Your task to perform on an android device: Go to ESPN.com Image 0: 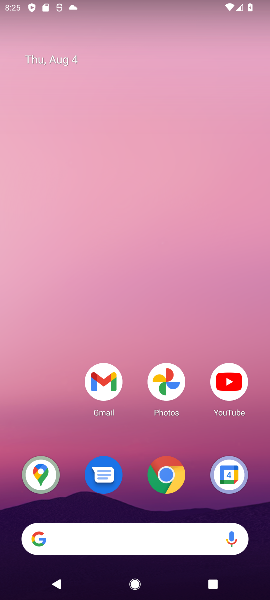
Step 0: drag from (133, 513) to (131, 55)
Your task to perform on an android device: Go to ESPN.com Image 1: 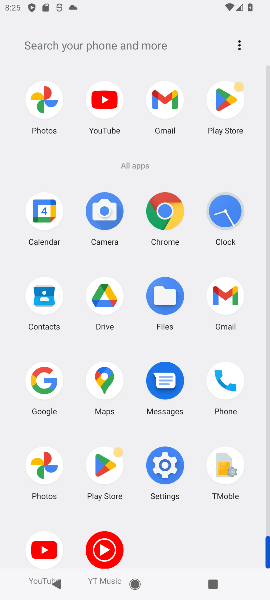
Step 1: click (163, 208)
Your task to perform on an android device: Go to ESPN.com Image 2: 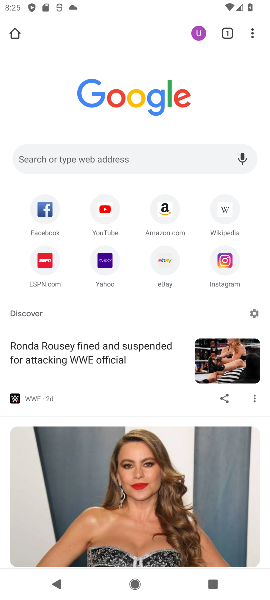
Step 2: click (91, 162)
Your task to perform on an android device: Go to ESPN.com Image 3: 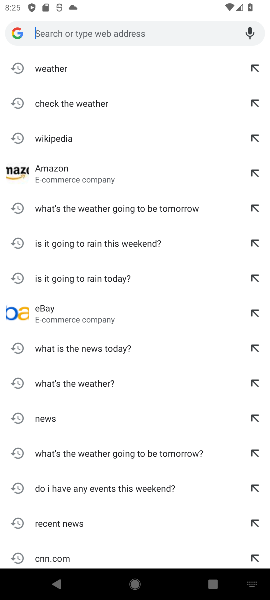
Step 3: type "ESPN.com"
Your task to perform on an android device: Go to ESPN.com Image 4: 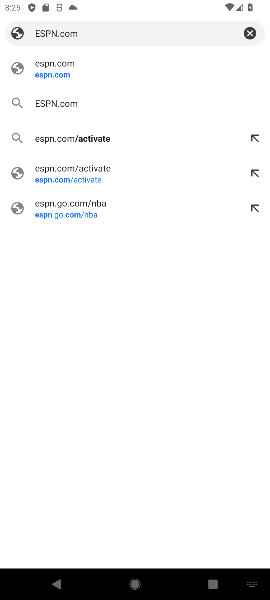
Step 4: click (41, 62)
Your task to perform on an android device: Go to ESPN.com Image 5: 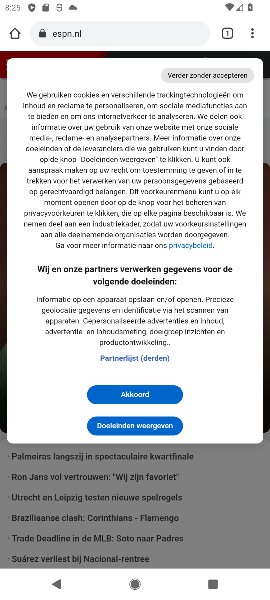
Step 5: drag from (103, 147) to (142, 466)
Your task to perform on an android device: Go to ESPN.com Image 6: 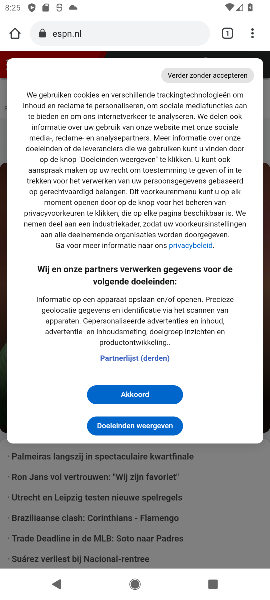
Step 6: drag from (266, 59) to (264, 450)
Your task to perform on an android device: Go to ESPN.com Image 7: 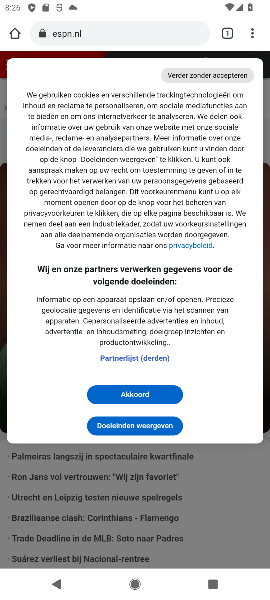
Step 7: drag from (148, 321) to (177, 120)
Your task to perform on an android device: Go to ESPN.com Image 8: 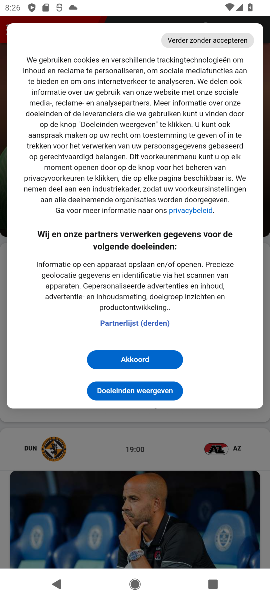
Step 8: drag from (130, 265) to (165, 61)
Your task to perform on an android device: Go to ESPN.com Image 9: 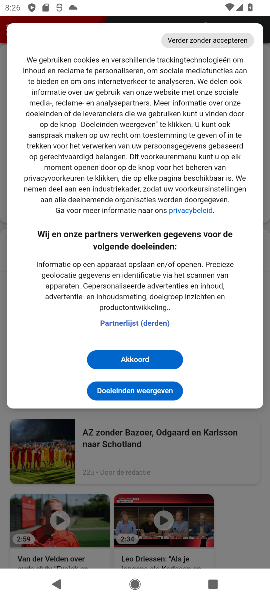
Step 9: drag from (142, 78) to (176, 333)
Your task to perform on an android device: Go to ESPN.com Image 10: 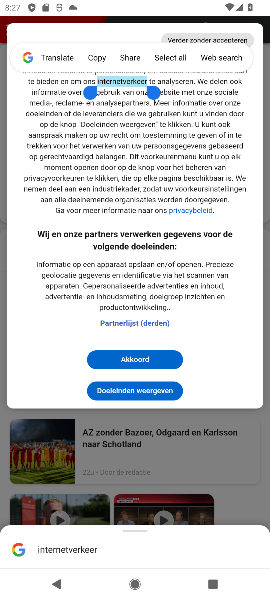
Step 10: drag from (152, 54) to (129, 371)
Your task to perform on an android device: Go to ESPN.com Image 11: 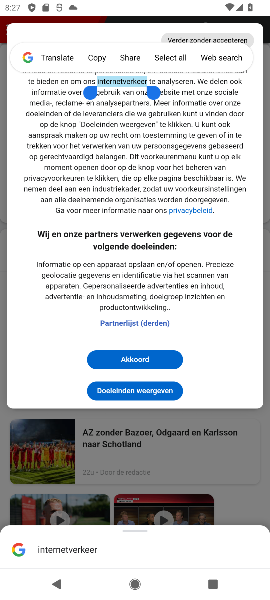
Step 11: click (126, 138)
Your task to perform on an android device: Go to ESPN.com Image 12: 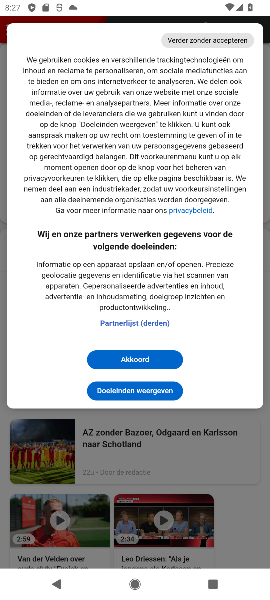
Step 12: task complete